Your task to perform on an android device: turn off picture-in-picture Image 0: 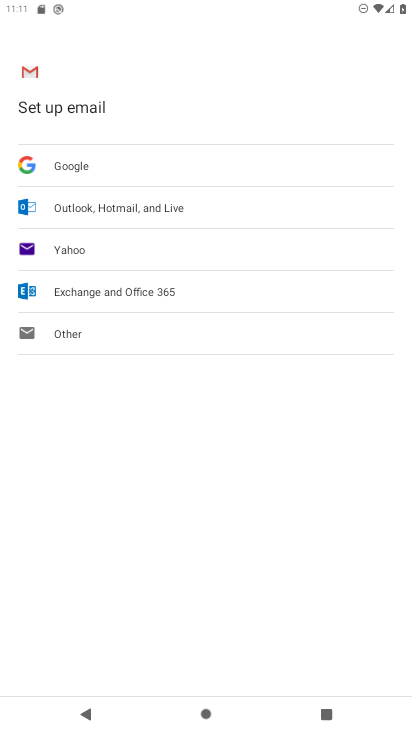
Step 0: press back button
Your task to perform on an android device: turn off picture-in-picture Image 1: 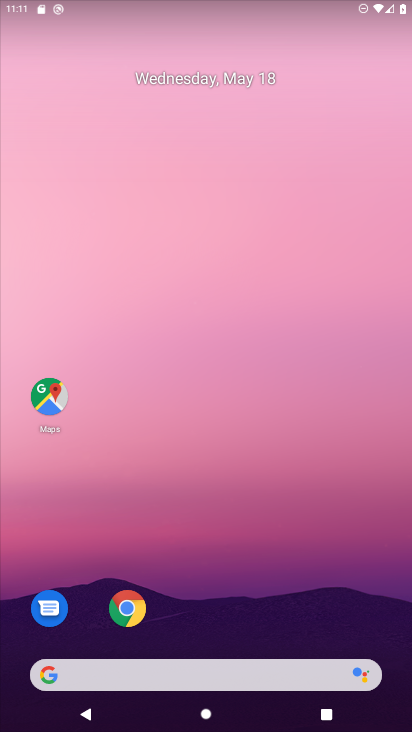
Step 1: click (127, 607)
Your task to perform on an android device: turn off picture-in-picture Image 2: 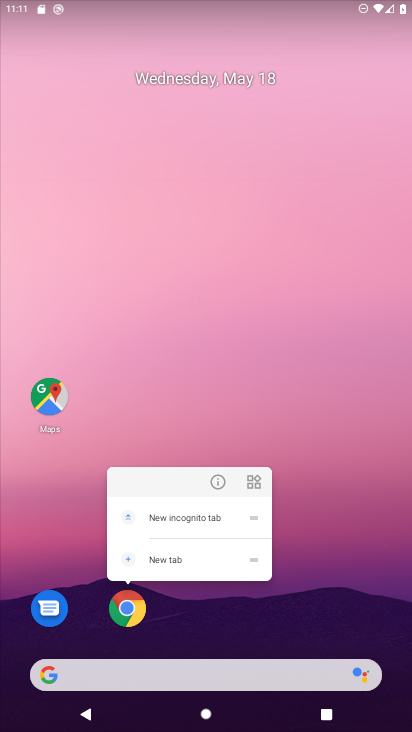
Step 2: click (215, 482)
Your task to perform on an android device: turn off picture-in-picture Image 3: 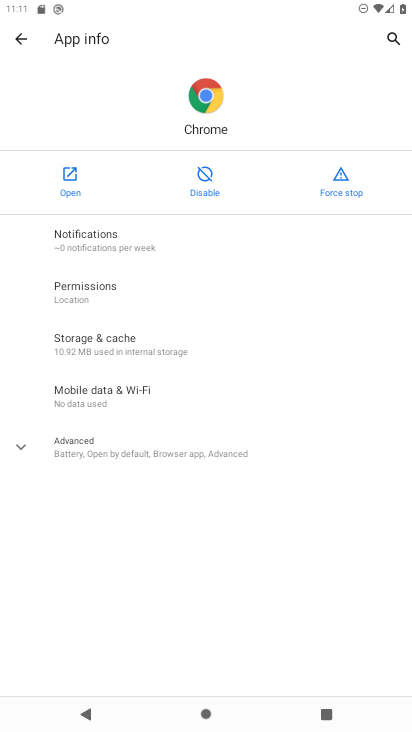
Step 3: click (92, 442)
Your task to perform on an android device: turn off picture-in-picture Image 4: 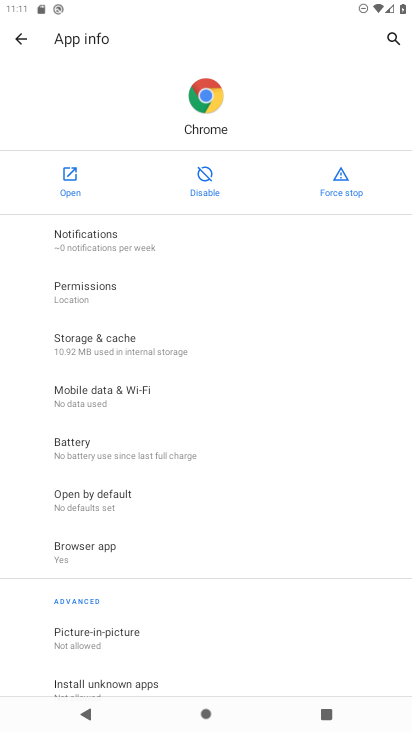
Step 4: drag from (125, 582) to (143, 494)
Your task to perform on an android device: turn off picture-in-picture Image 5: 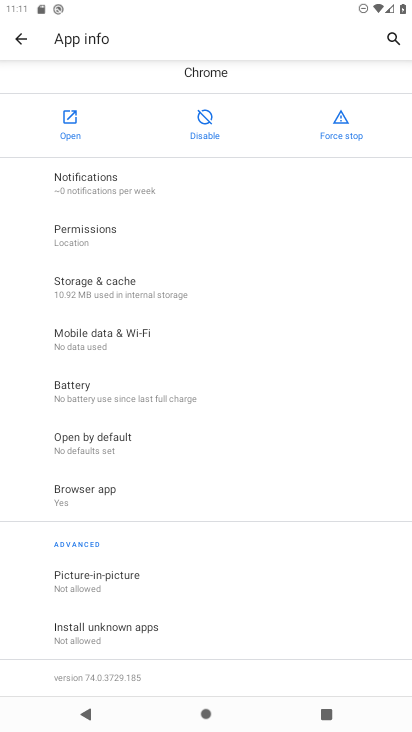
Step 5: click (106, 575)
Your task to perform on an android device: turn off picture-in-picture Image 6: 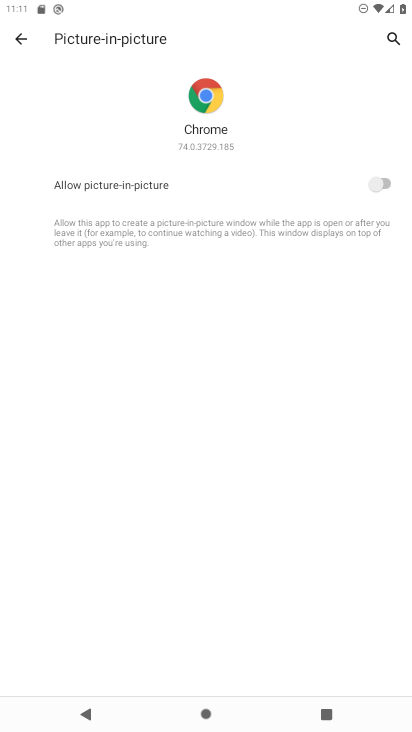
Step 6: task complete